Your task to perform on an android device: Empty the shopping cart on ebay.com. Add logitech g pro to the cart on ebay.com, then select checkout. Image 0: 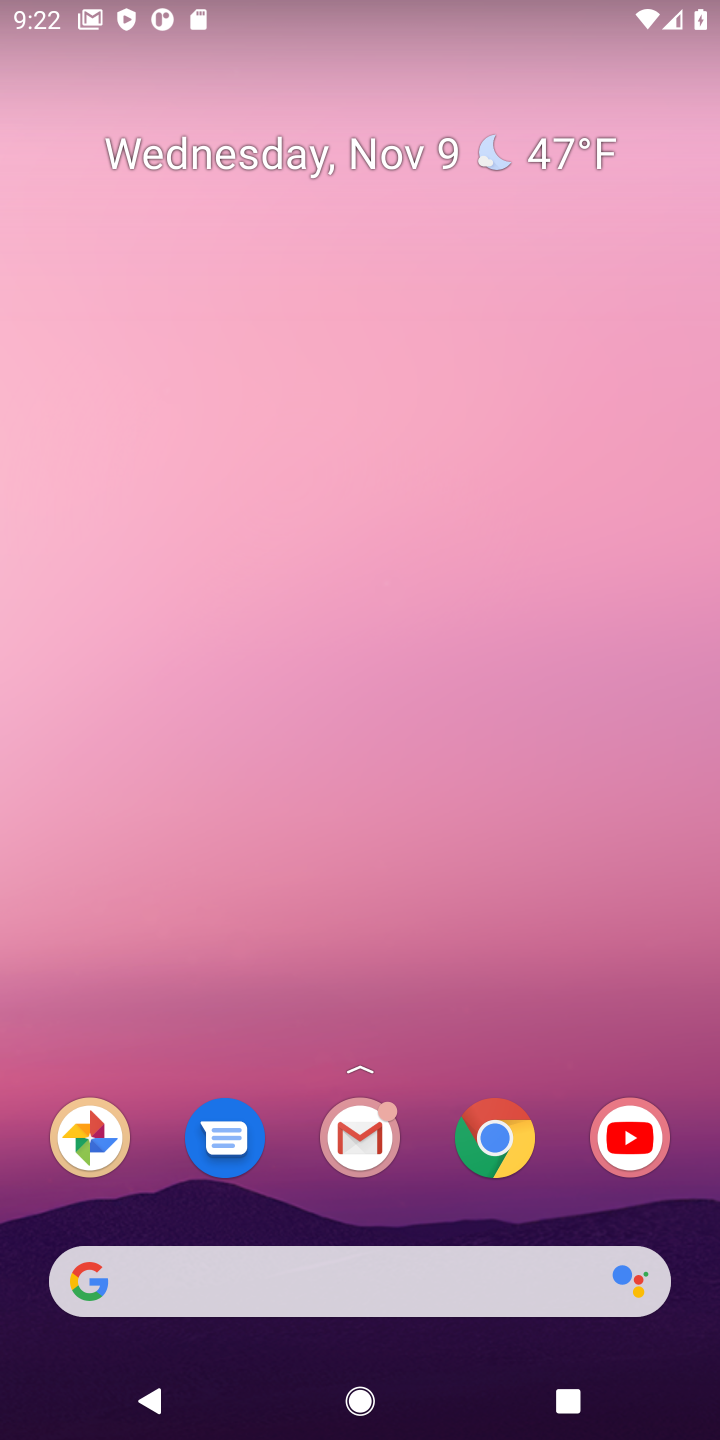
Step 0: drag from (293, 1128) to (353, 4)
Your task to perform on an android device: Empty the shopping cart on ebay.com. Add logitech g pro to the cart on ebay.com, then select checkout. Image 1: 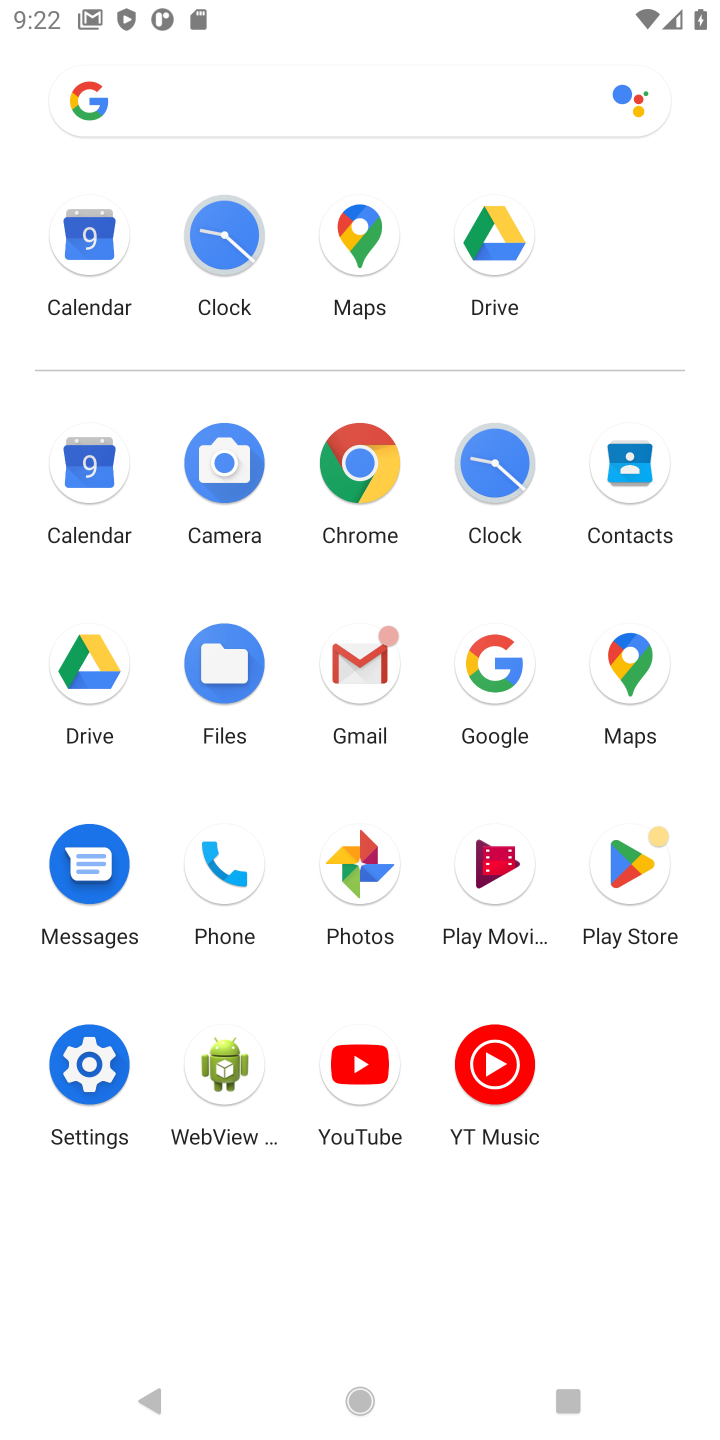
Step 1: click (351, 549)
Your task to perform on an android device: Empty the shopping cart on ebay.com. Add logitech g pro to the cart on ebay.com, then select checkout. Image 2: 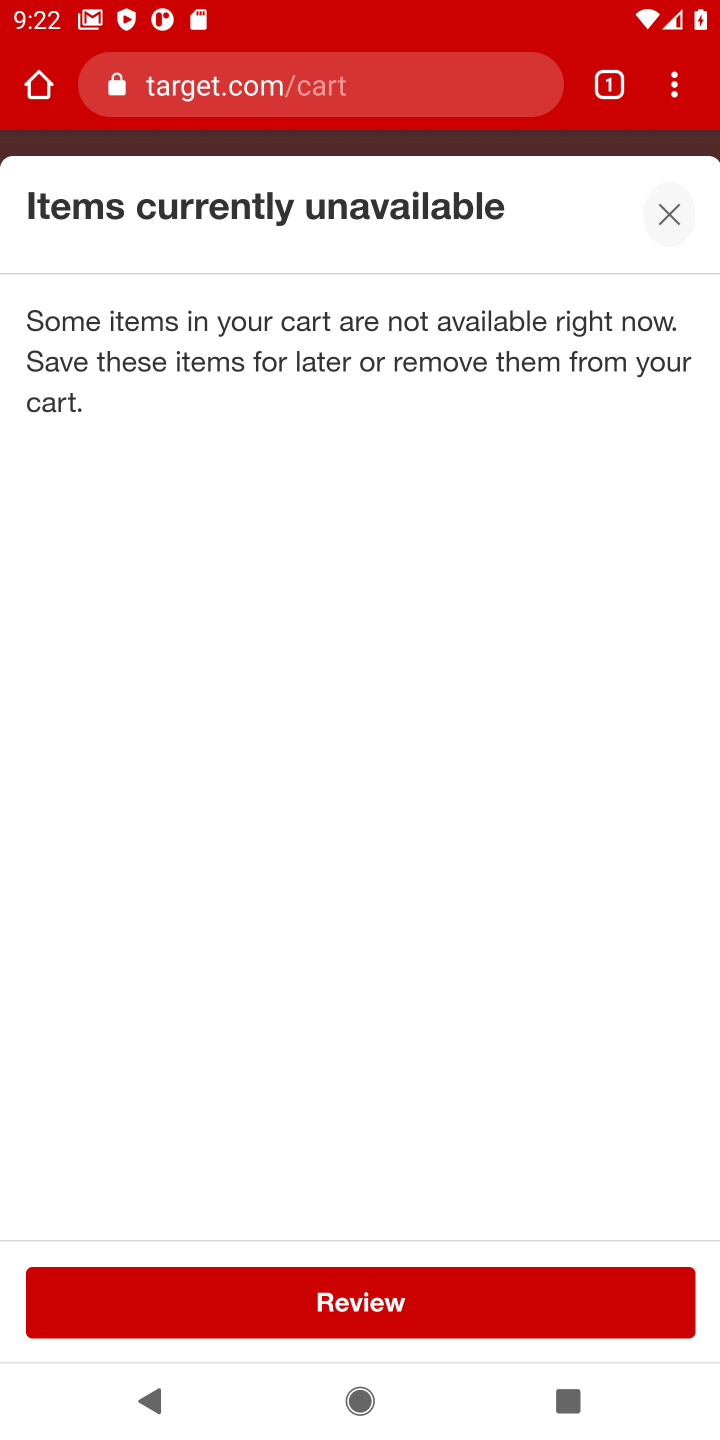
Step 2: click (517, 81)
Your task to perform on an android device: Empty the shopping cart on ebay.com. Add logitech g pro to the cart on ebay.com, then select checkout. Image 3: 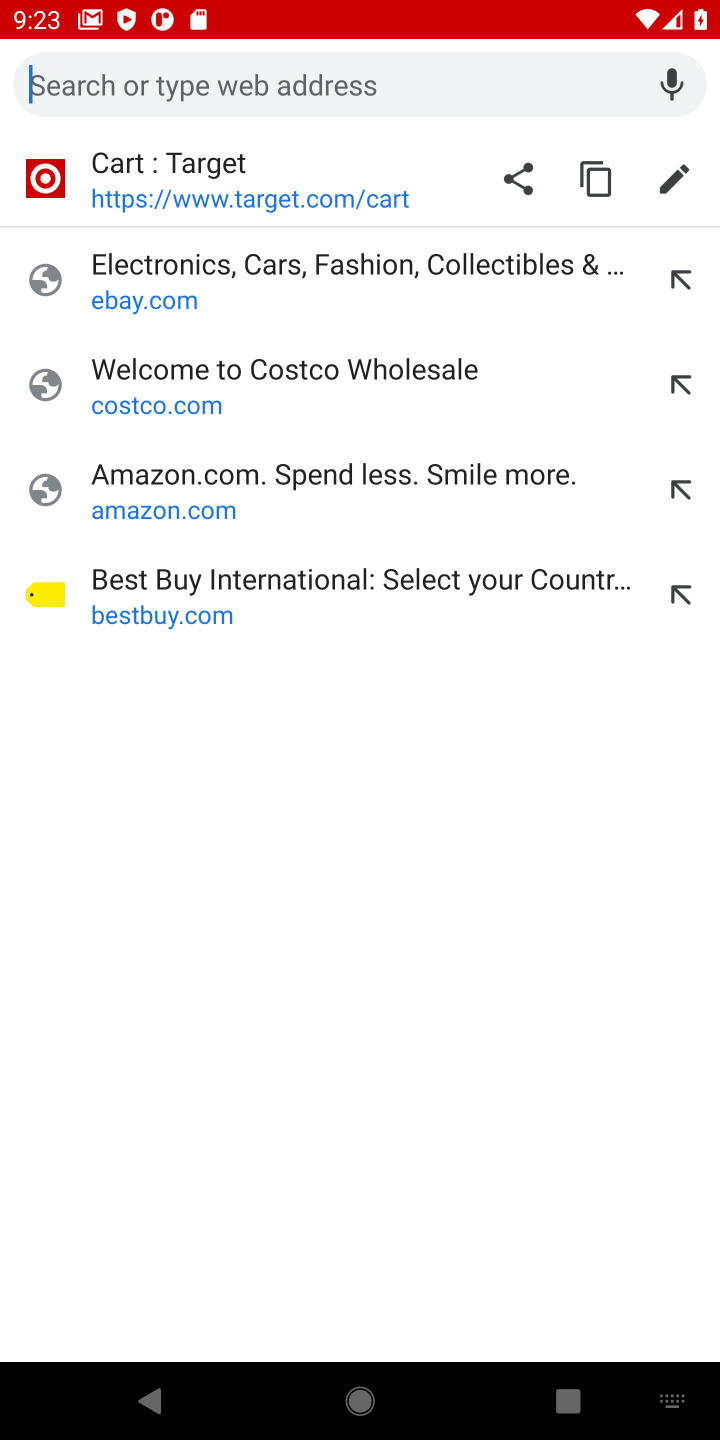
Step 3: type "ebay.com"
Your task to perform on an android device: Empty the shopping cart on ebay.com. Add logitech g pro to the cart on ebay.com, then select checkout. Image 4: 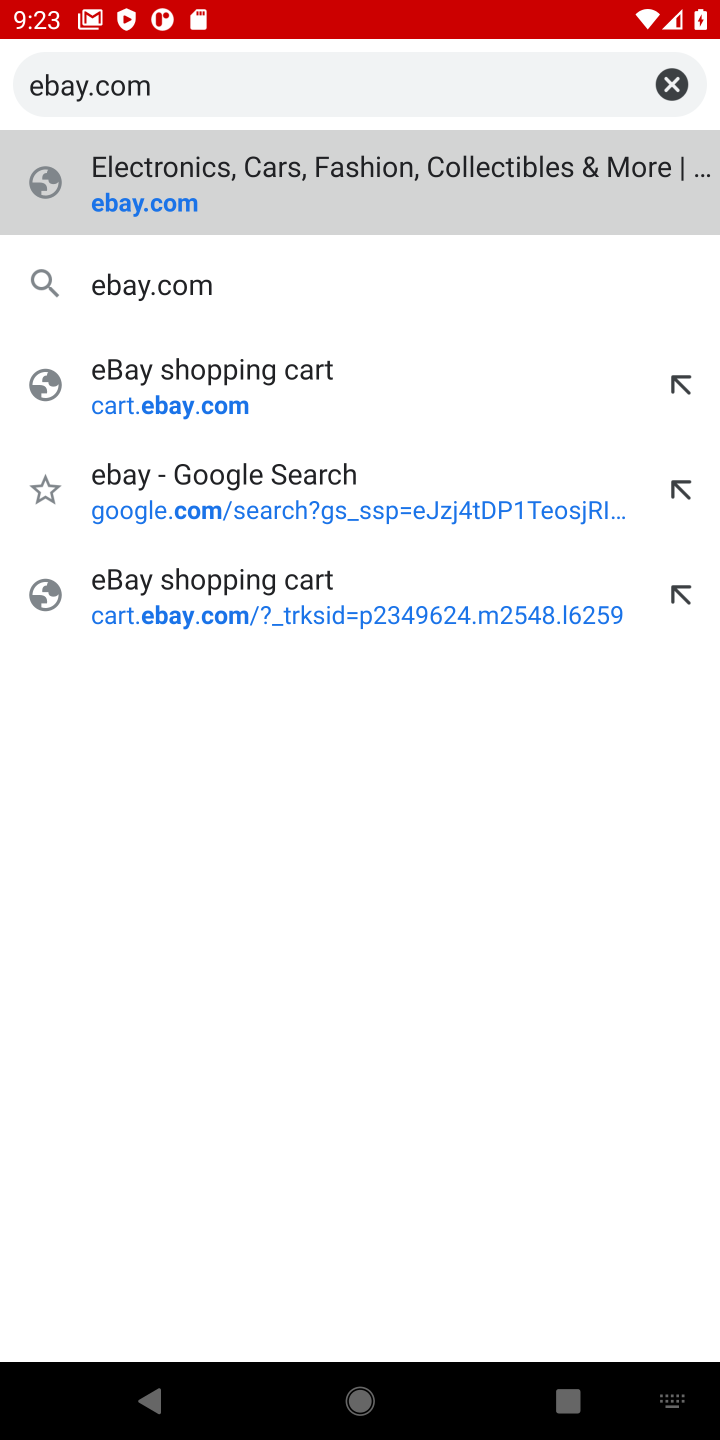
Step 4: press enter
Your task to perform on an android device: Empty the shopping cart on ebay.com. Add logitech g pro to the cart on ebay.com, then select checkout. Image 5: 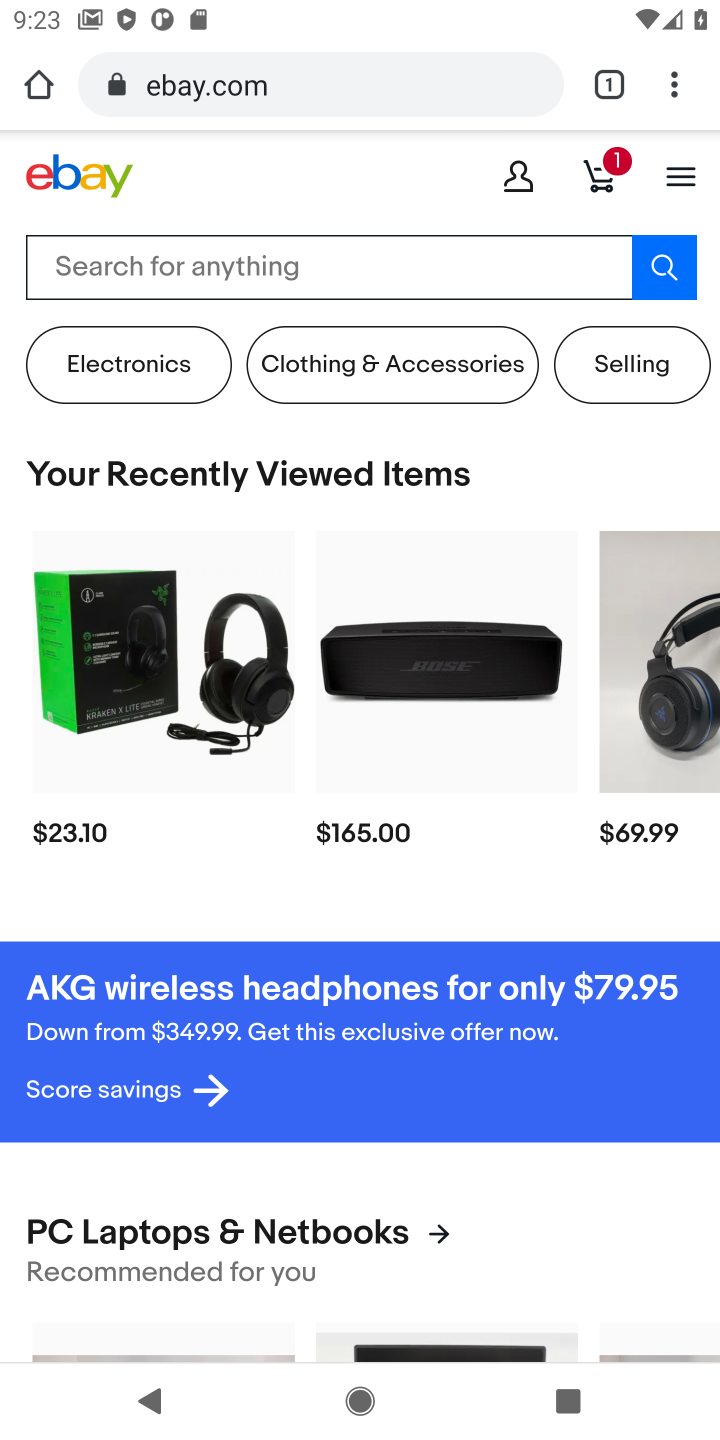
Step 5: click (607, 162)
Your task to perform on an android device: Empty the shopping cart on ebay.com. Add logitech g pro to the cart on ebay.com, then select checkout. Image 6: 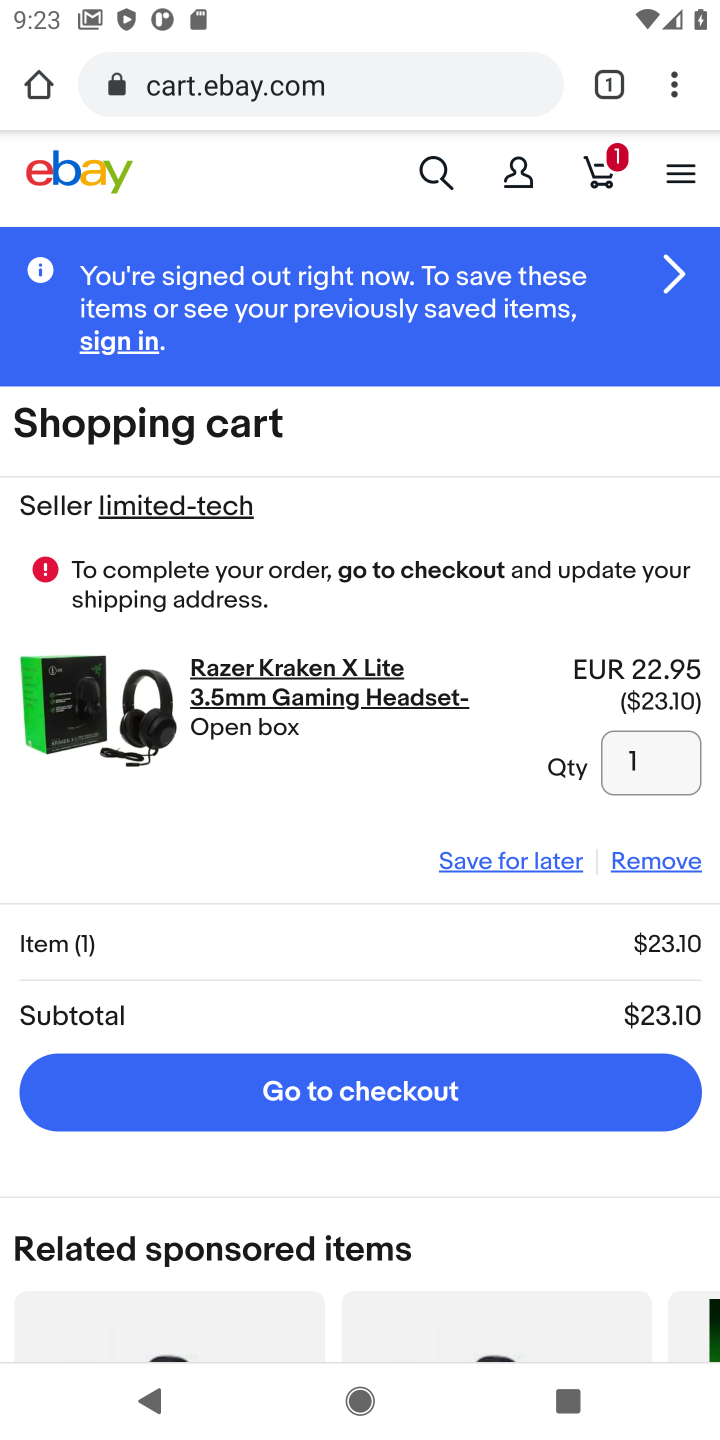
Step 6: click (659, 861)
Your task to perform on an android device: Empty the shopping cart on ebay.com. Add logitech g pro to the cart on ebay.com, then select checkout. Image 7: 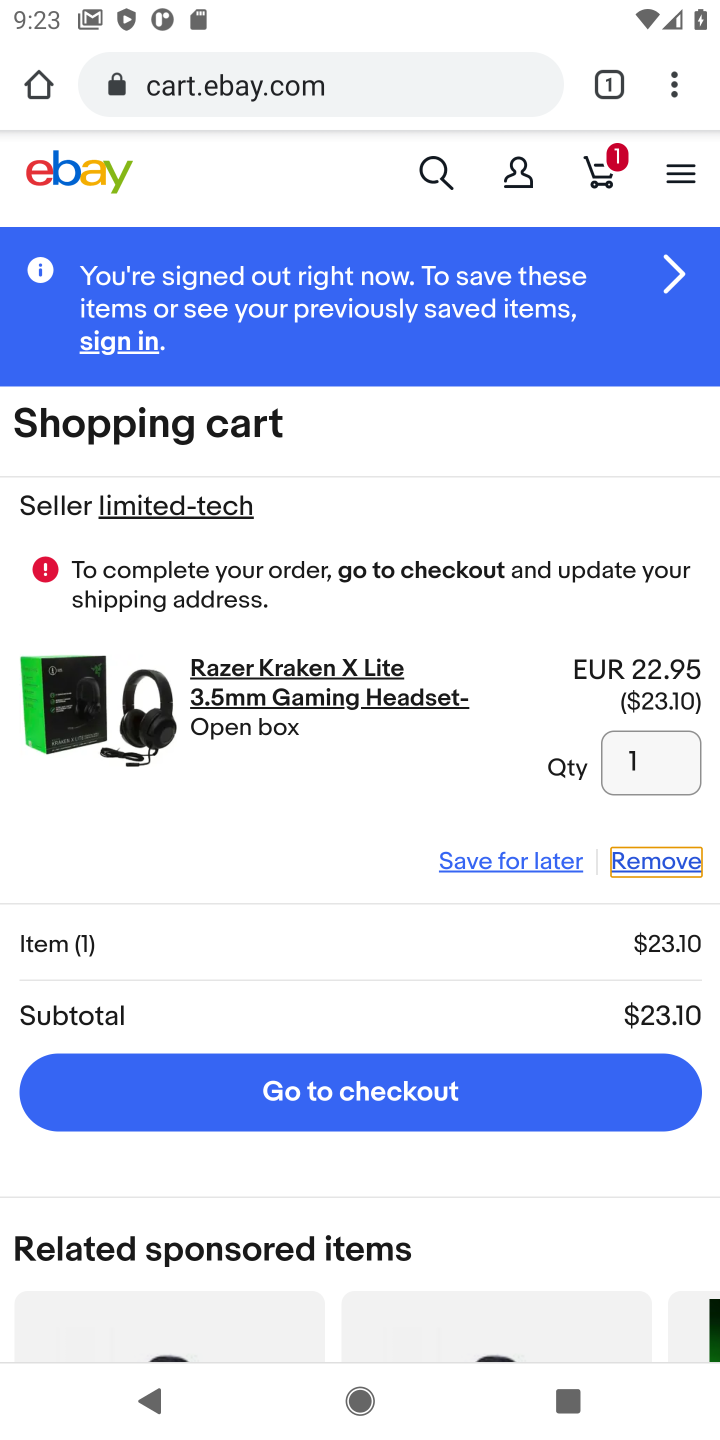
Step 7: click (658, 856)
Your task to perform on an android device: Empty the shopping cart on ebay.com. Add logitech g pro to the cart on ebay.com, then select checkout. Image 8: 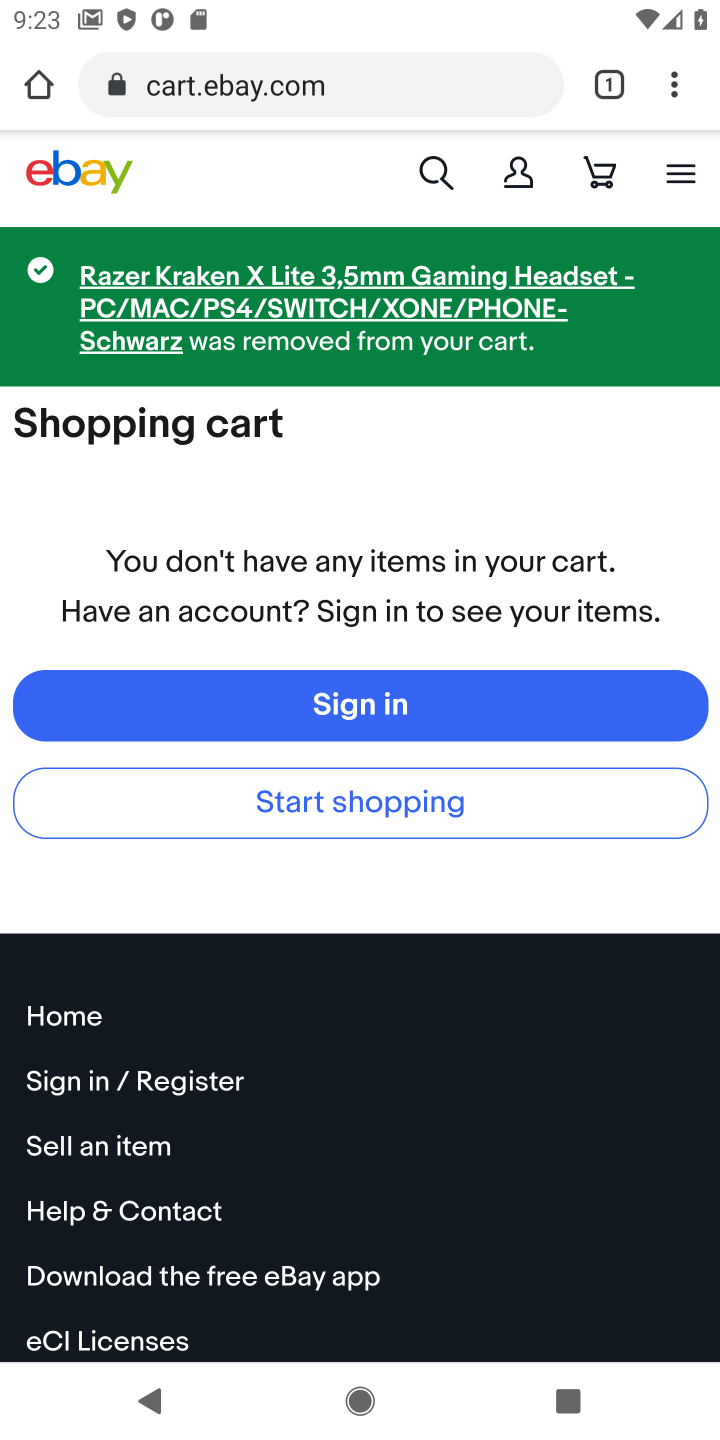
Step 8: click (435, 157)
Your task to perform on an android device: Empty the shopping cart on ebay.com. Add logitech g pro to the cart on ebay.com, then select checkout. Image 9: 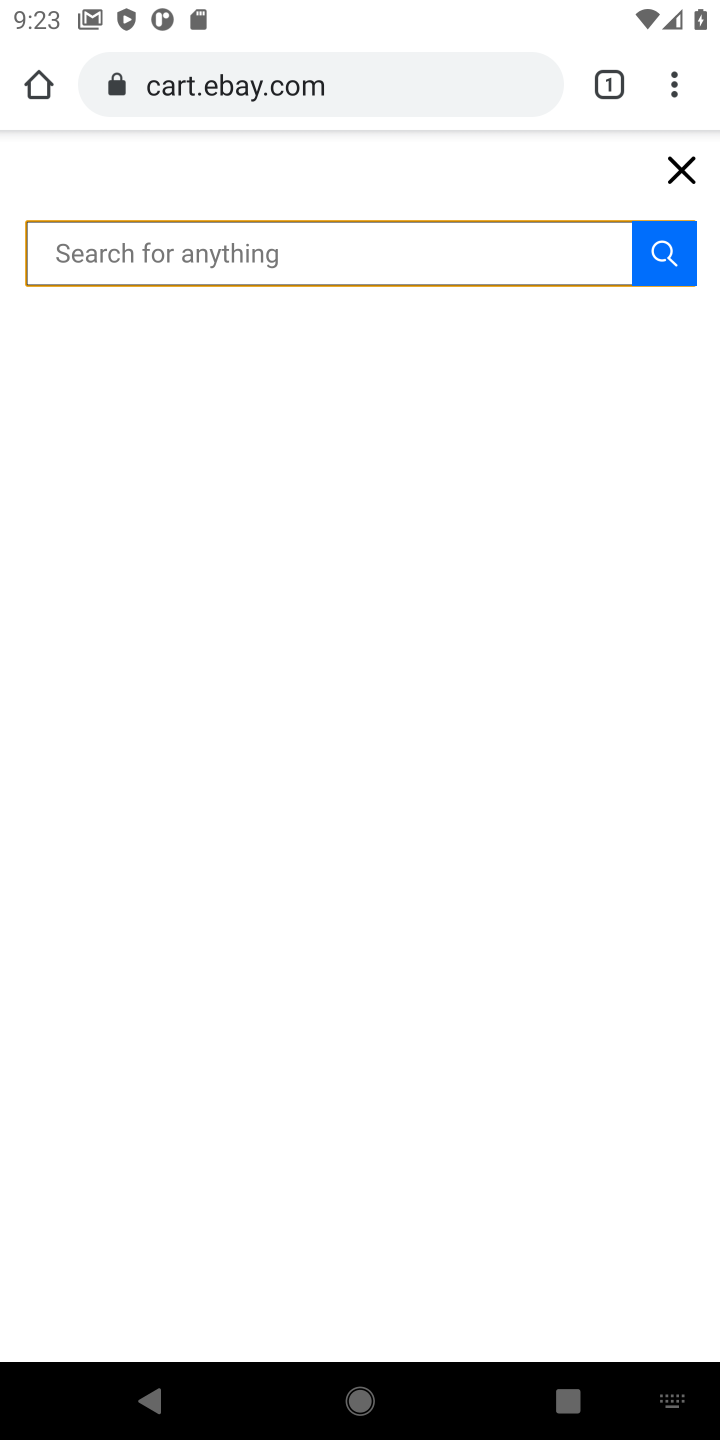
Step 9: type "logitech g pro"
Your task to perform on an android device: Empty the shopping cart on ebay.com. Add logitech g pro to the cart on ebay.com, then select checkout. Image 10: 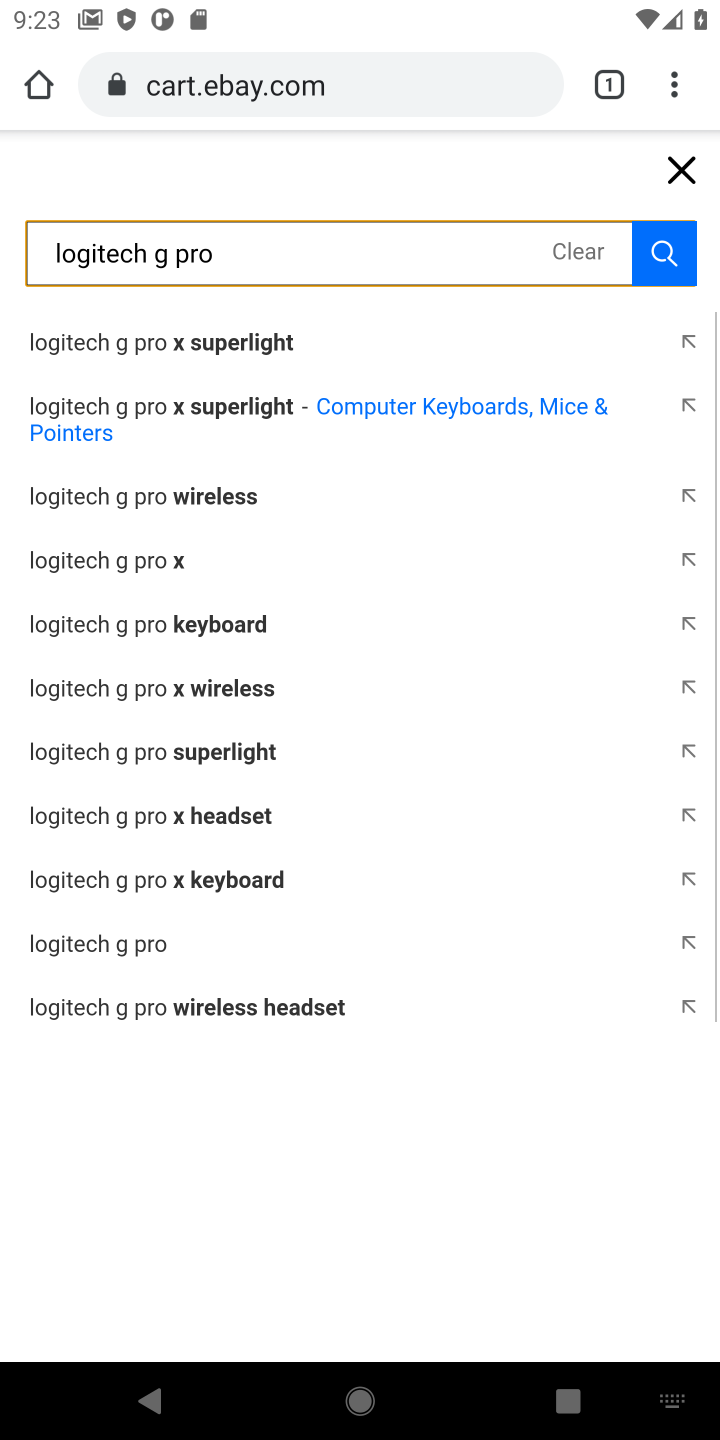
Step 10: press enter
Your task to perform on an android device: Empty the shopping cart on ebay.com. Add logitech g pro to the cart on ebay.com, then select checkout. Image 11: 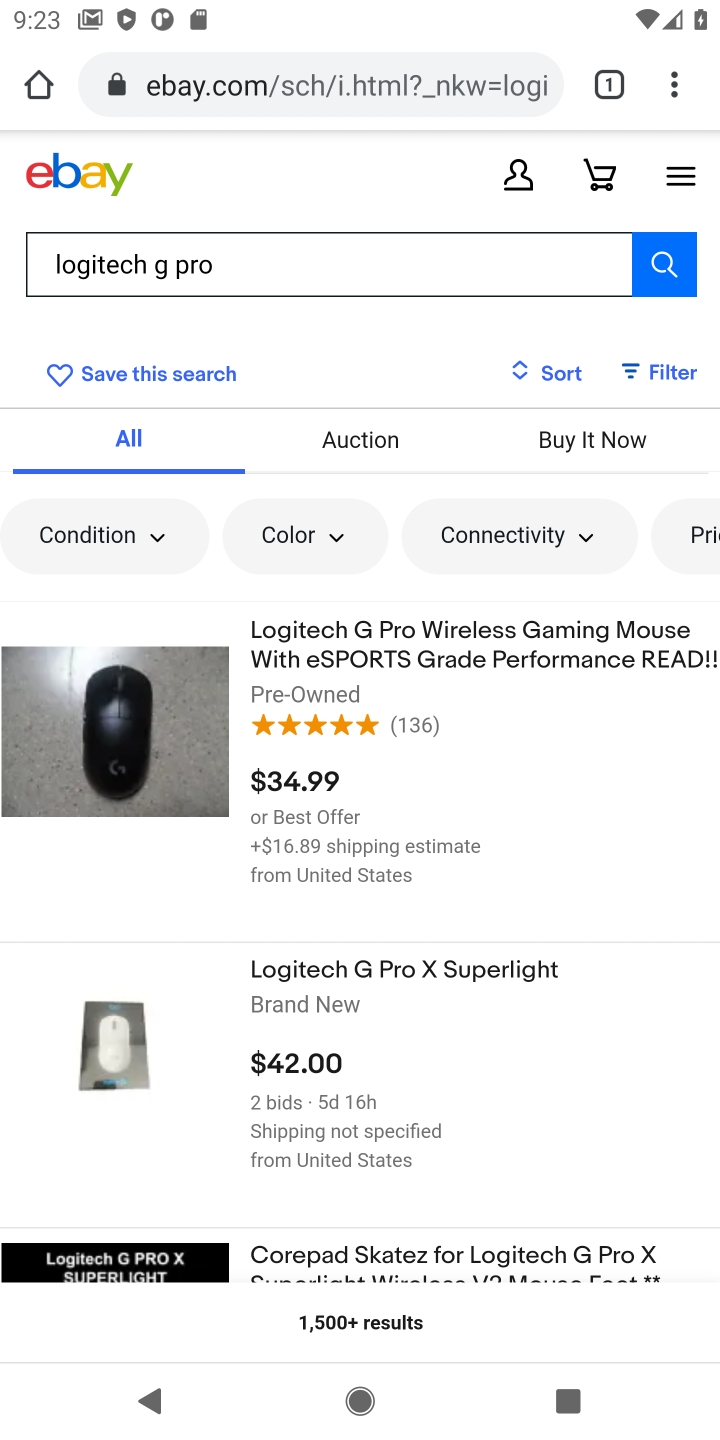
Step 11: click (160, 707)
Your task to perform on an android device: Empty the shopping cart on ebay.com. Add logitech g pro to the cart on ebay.com, then select checkout. Image 12: 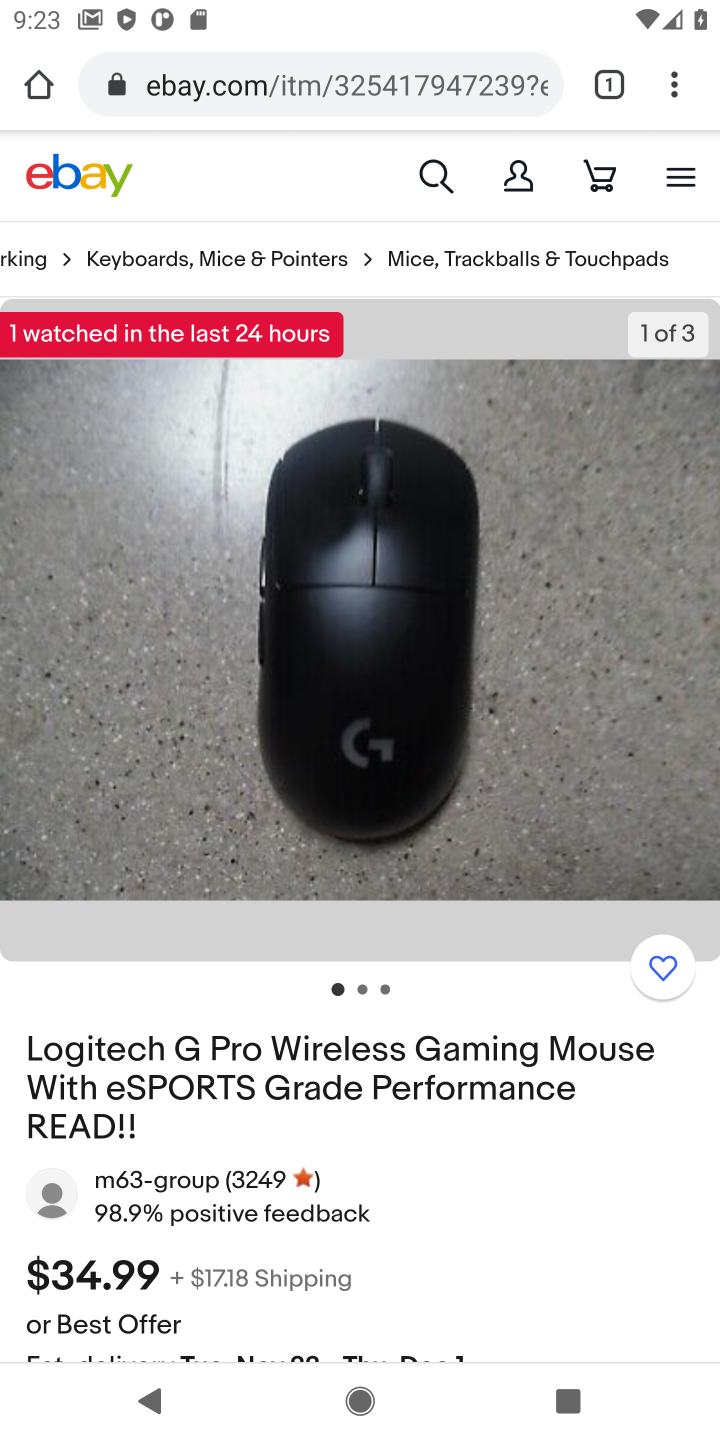
Step 12: drag from (373, 1134) to (314, 111)
Your task to perform on an android device: Empty the shopping cart on ebay.com. Add logitech g pro to the cart on ebay.com, then select checkout. Image 13: 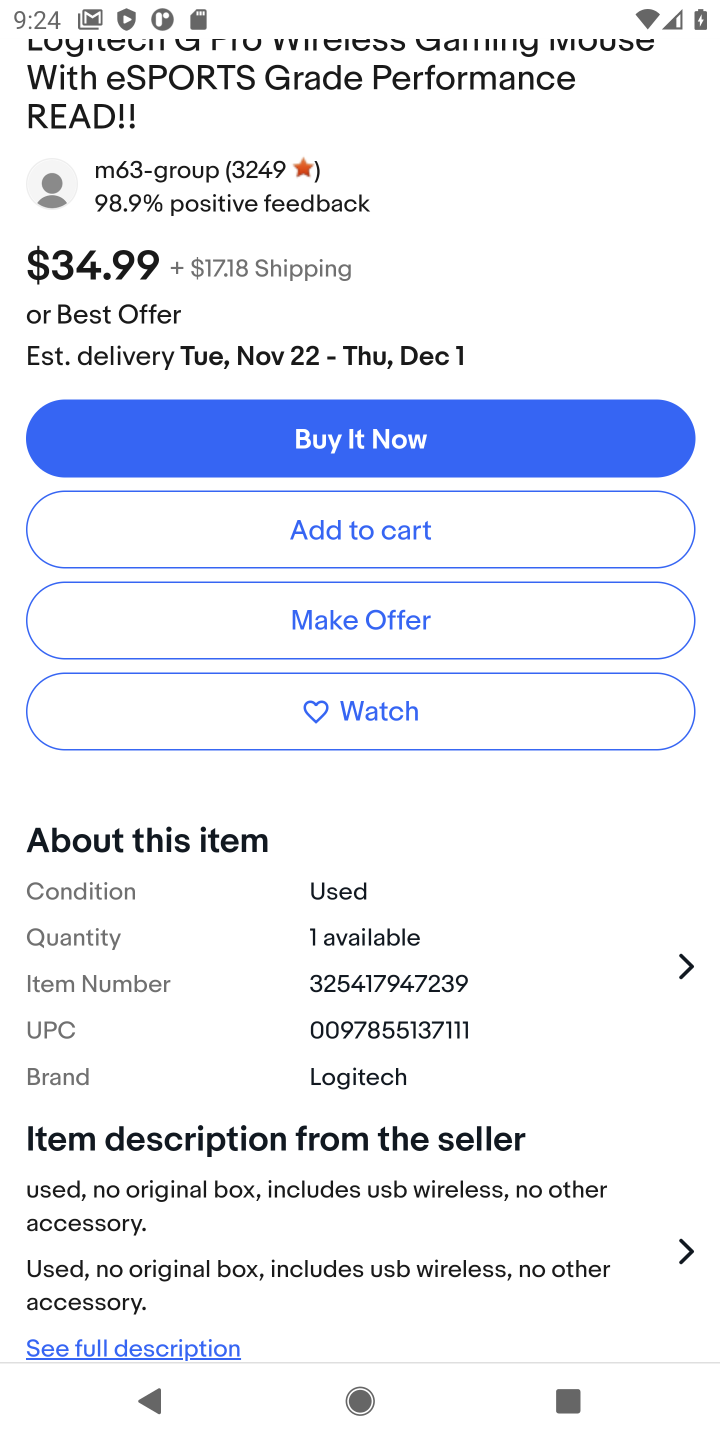
Step 13: click (440, 534)
Your task to perform on an android device: Empty the shopping cart on ebay.com. Add logitech g pro to the cart on ebay.com, then select checkout. Image 14: 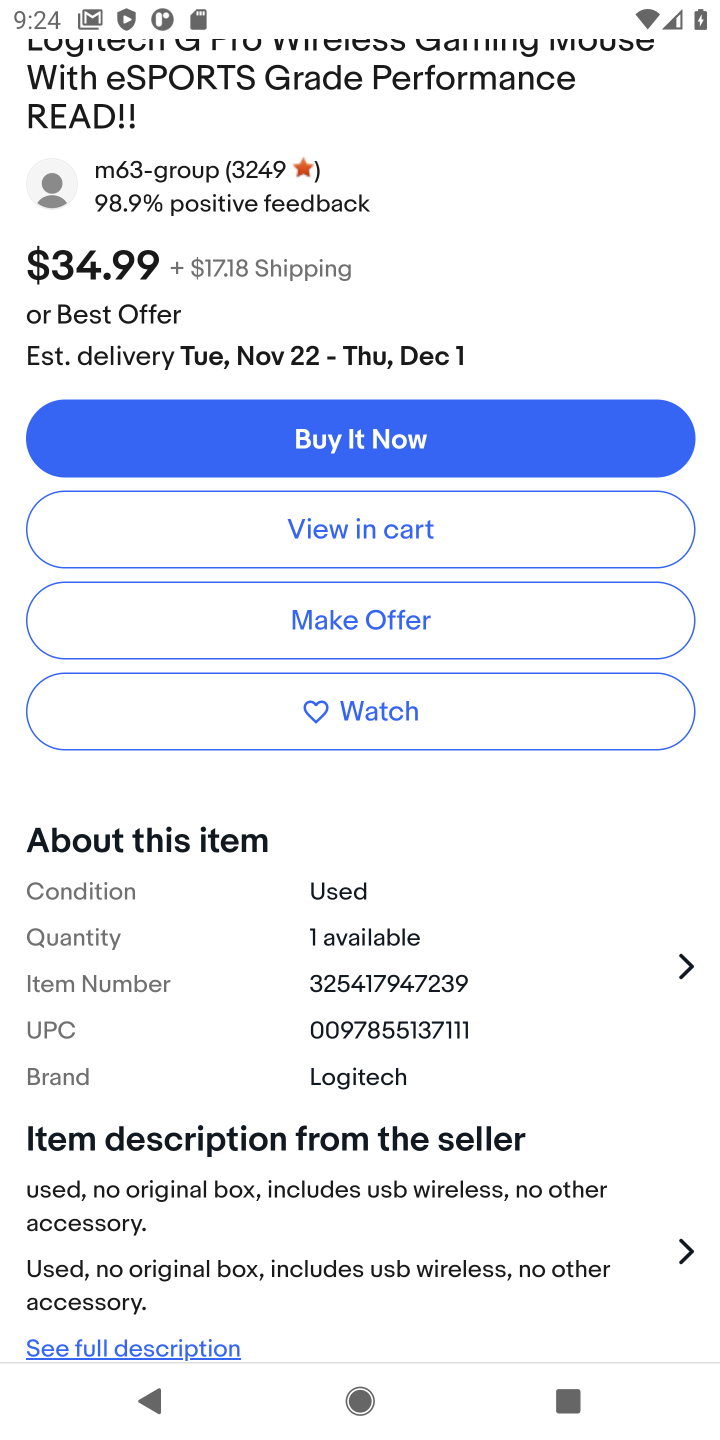
Step 14: click (437, 533)
Your task to perform on an android device: Empty the shopping cart on ebay.com. Add logitech g pro to the cart on ebay.com, then select checkout. Image 15: 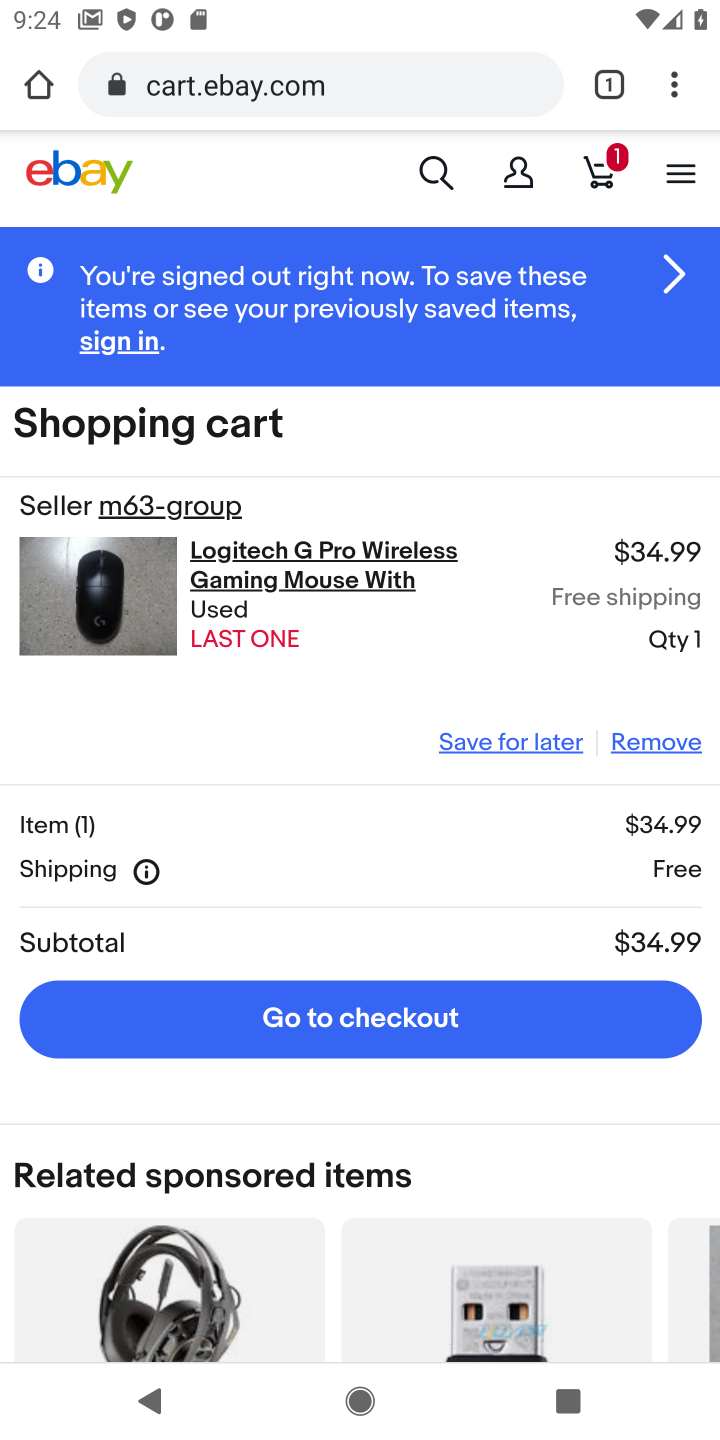
Step 15: click (396, 1031)
Your task to perform on an android device: Empty the shopping cart on ebay.com. Add logitech g pro to the cart on ebay.com, then select checkout. Image 16: 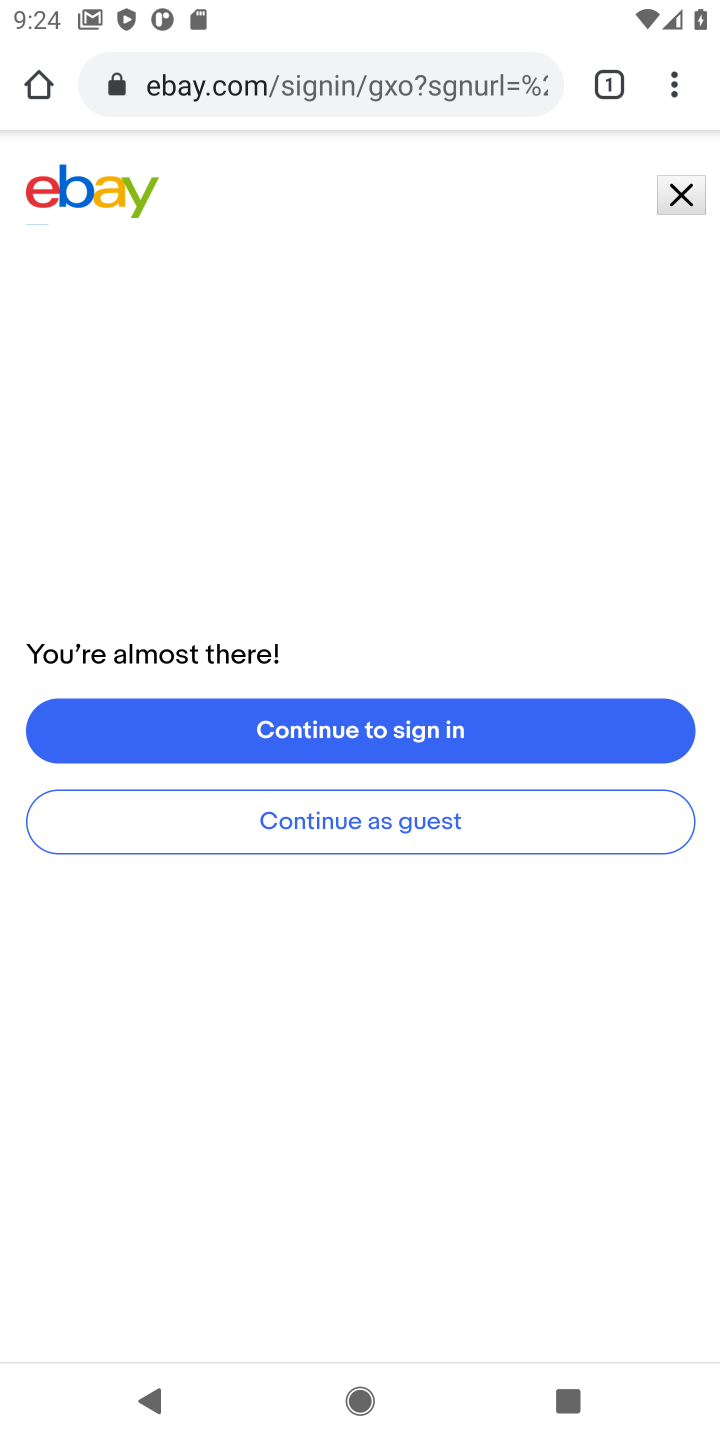
Step 16: task complete